Your task to perform on an android device: toggle show notifications on the lock screen Image 0: 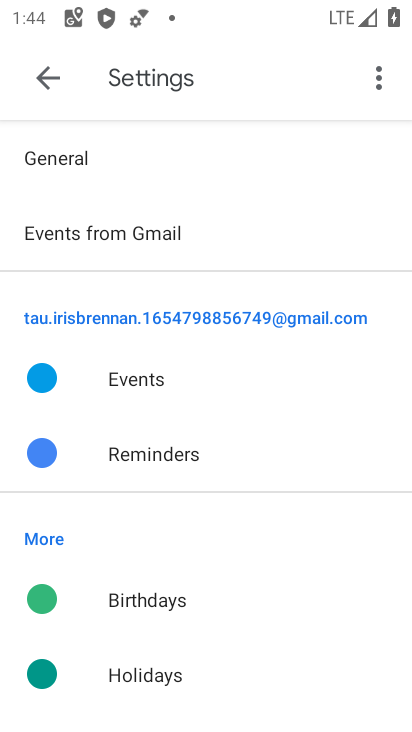
Step 0: press home button
Your task to perform on an android device: toggle show notifications on the lock screen Image 1: 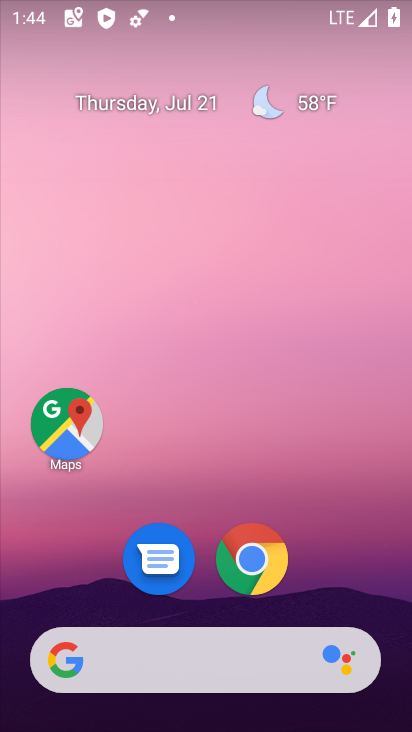
Step 1: drag from (373, 576) to (402, 86)
Your task to perform on an android device: toggle show notifications on the lock screen Image 2: 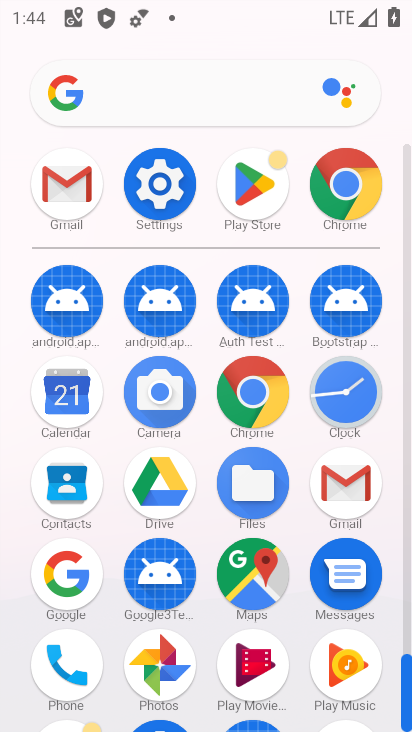
Step 2: click (168, 207)
Your task to perform on an android device: toggle show notifications on the lock screen Image 3: 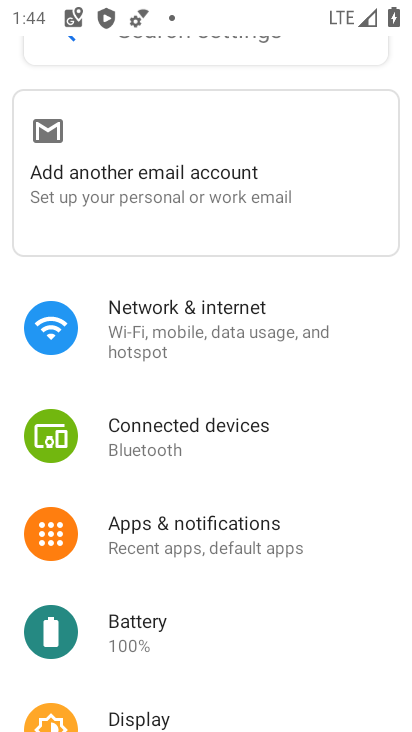
Step 3: drag from (365, 556) to (362, 415)
Your task to perform on an android device: toggle show notifications on the lock screen Image 4: 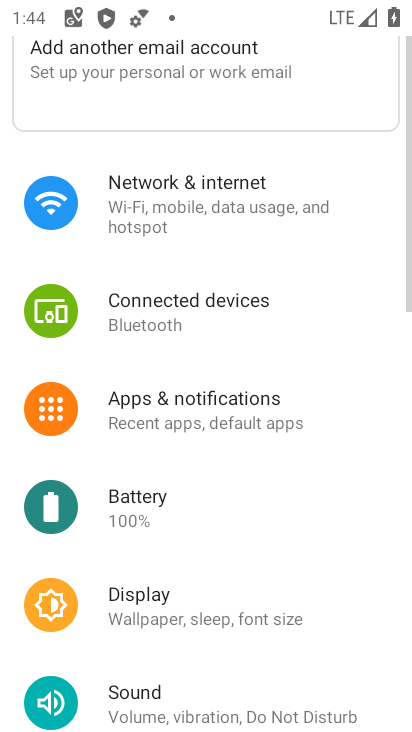
Step 4: drag from (348, 533) to (354, 428)
Your task to perform on an android device: toggle show notifications on the lock screen Image 5: 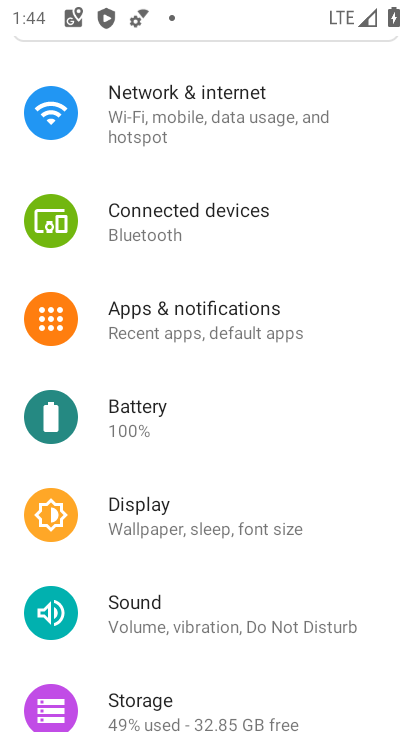
Step 5: drag from (355, 525) to (357, 425)
Your task to perform on an android device: toggle show notifications on the lock screen Image 6: 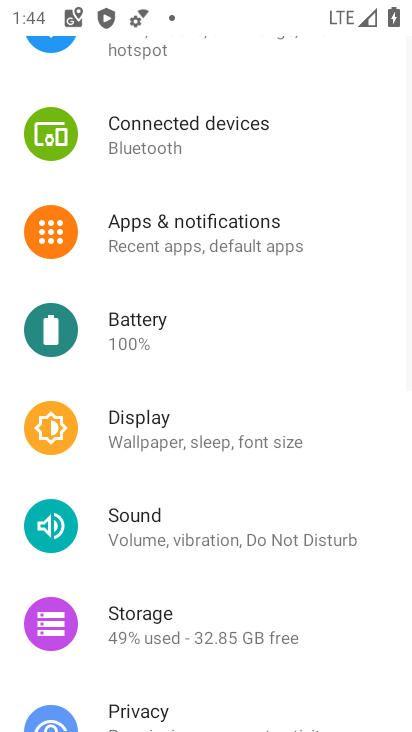
Step 6: drag from (349, 594) to (349, 486)
Your task to perform on an android device: toggle show notifications on the lock screen Image 7: 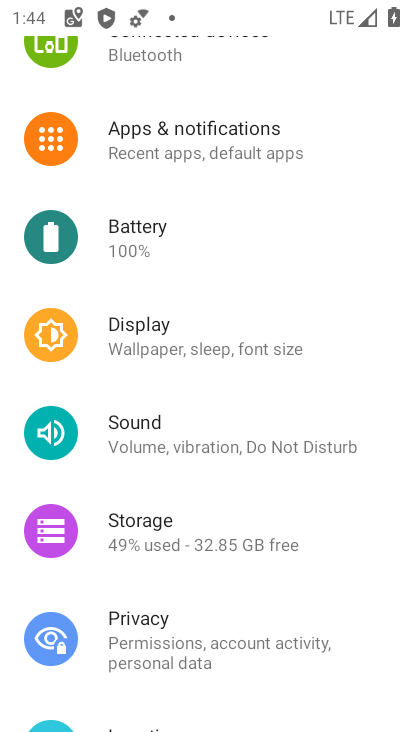
Step 7: drag from (347, 568) to (353, 439)
Your task to perform on an android device: toggle show notifications on the lock screen Image 8: 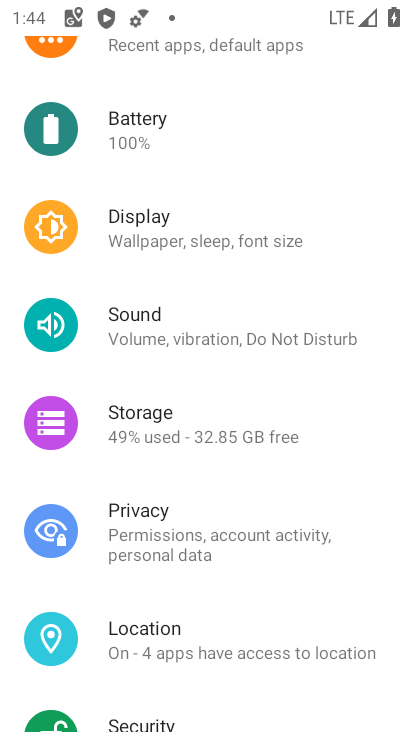
Step 8: drag from (347, 507) to (361, 313)
Your task to perform on an android device: toggle show notifications on the lock screen Image 9: 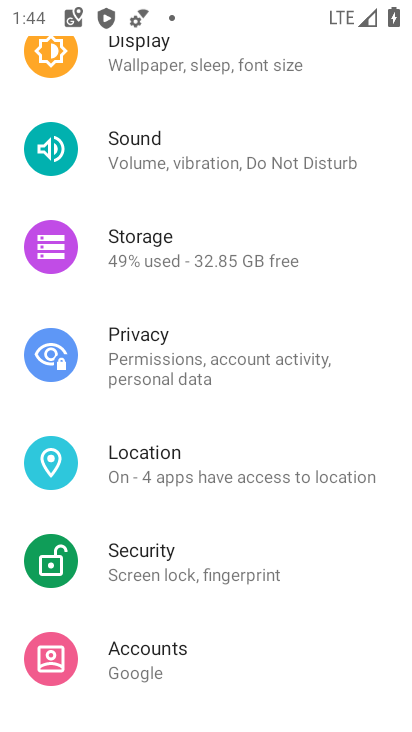
Step 9: drag from (365, 287) to (369, 377)
Your task to perform on an android device: toggle show notifications on the lock screen Image 10: 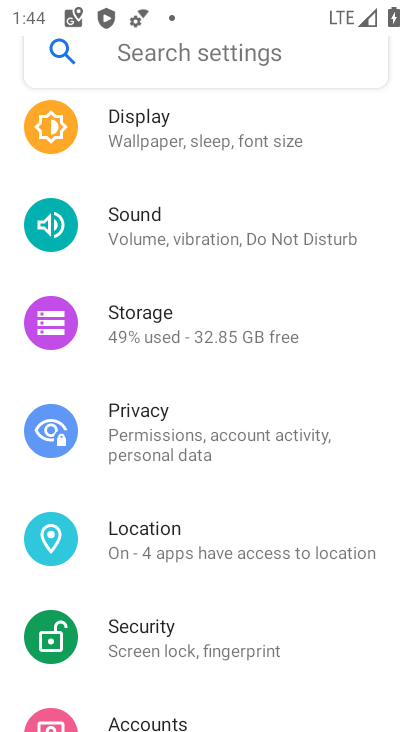
Step 10: drag from (372, 248) to (379, 347)
Your task to perform on an android device: toggle show notifications on the lock screen Image 11: 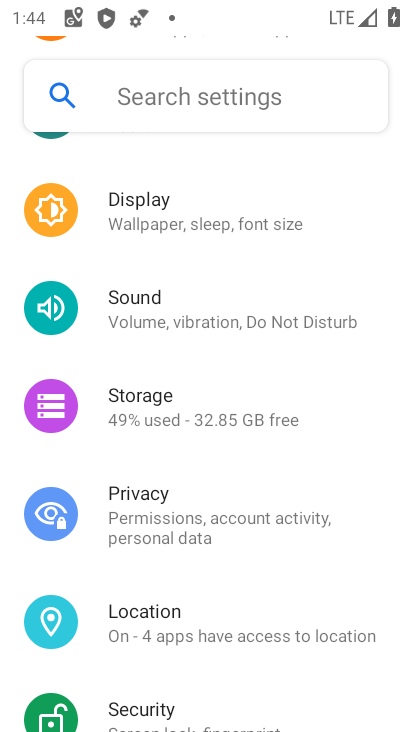
Step 11: drag from (370, 208) to (375, 311)
Your task to perform on an android device: toggle show notifications on the lock screen Image 12: 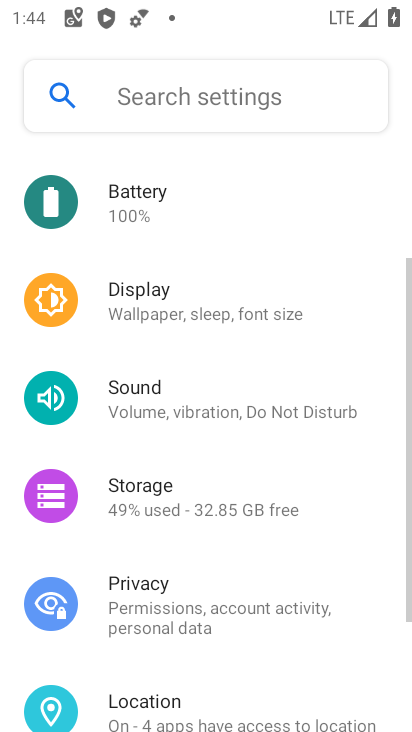
Step 12: drag from (362, 207) to (365, 330)
Your task to perform on an android device: toggle show notifications on the lock screen Image 13: 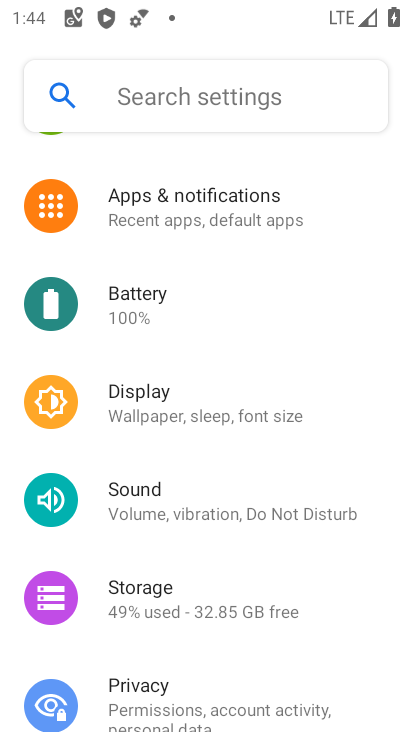
Step 13: drag from (361, 193) to (365, 310)
Your task to perform on an android device: toggle show notifications on the lock screen Image 14: 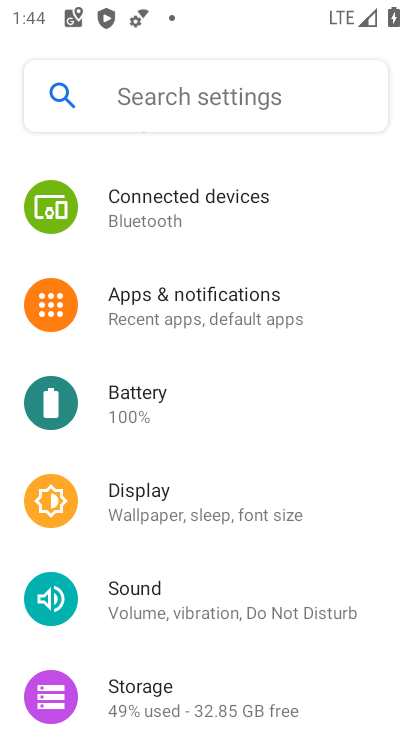
Step 14: click (318, 320)
Your task to perform on an android device: toggle show notifications on the lock screen Image 15: 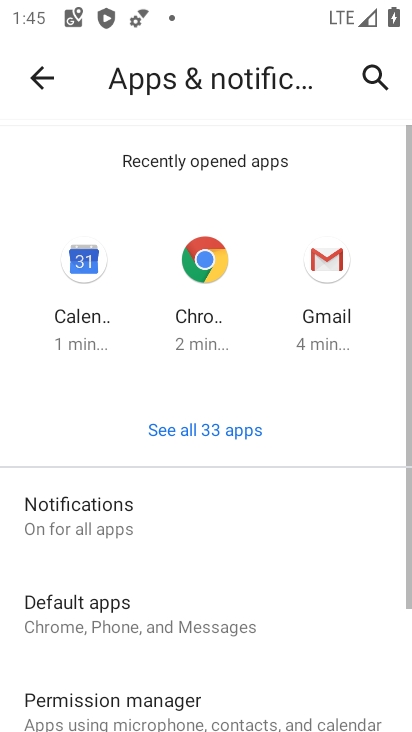
Step 15: click (257, 528)
Your task to perform on an android device: toggle show notifications on the lock screen Image 16: 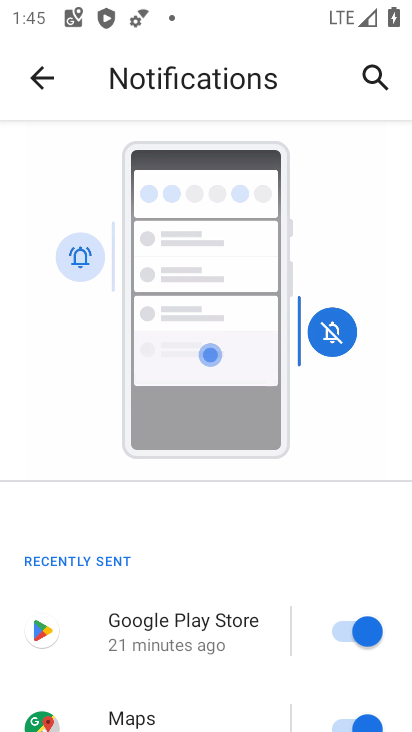
Step 16: drag from (259, 540) to (262, 431)
Your task to perform on an android device: toggle show notifications on the lock screen Image 17: 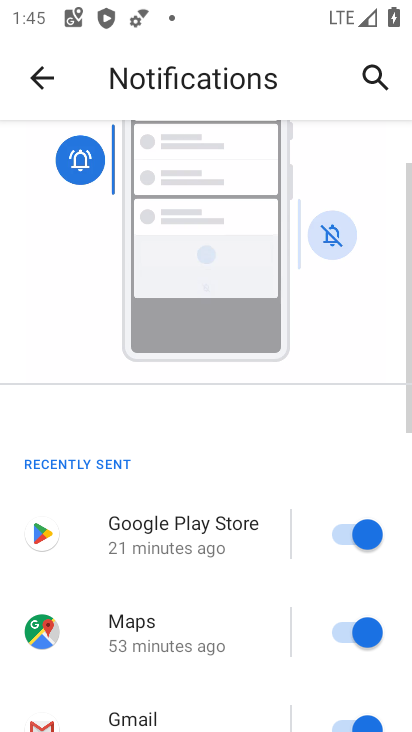
Step 17: drag from (254, 566) to (264, 465)
Your task to perform on an android device: toggle show notifications on the lock screen Image 18: 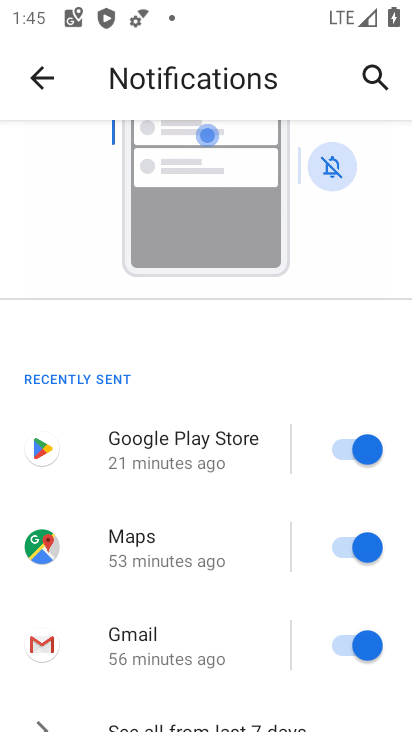
Step 18: drag from (258, 570) to (264, 450)
Your task to perform on an android device: toggle show notifications on the lock screen Image 19: 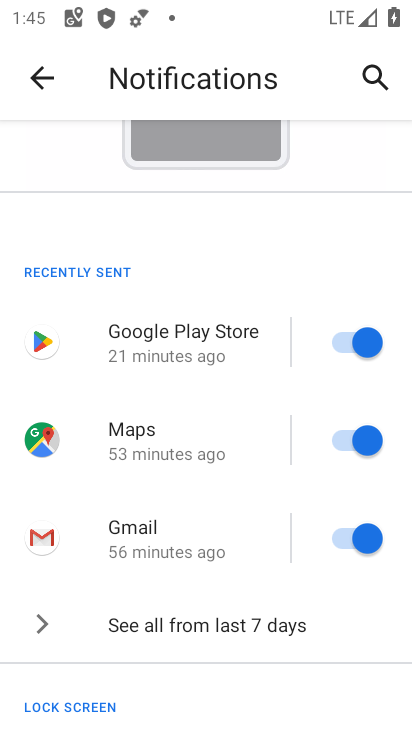
Step 19: drag from (258, 504) to (266, 412)
Your task to perform on an android device: toggle show notifications on the lock screen Image 20: 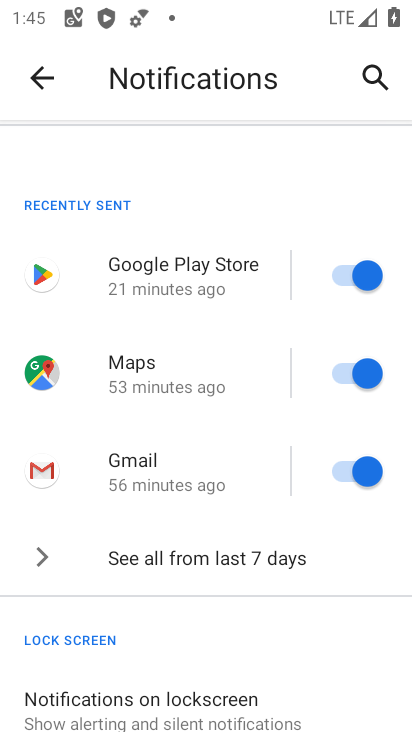
Step 20: drag from (247, 595) to (250, 429)
Your task to perform on an android device: toggle show notifications on the lock screen Image 21: 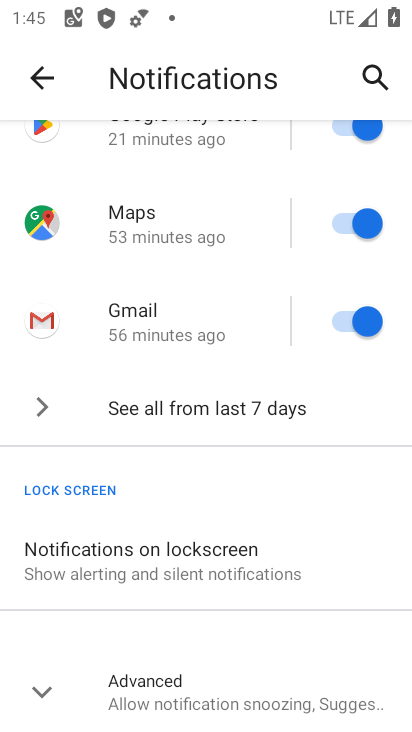
Step 21: click (251, 563)
Your task to perform on an android device: toggle show notifications on the lock screen Image 22: 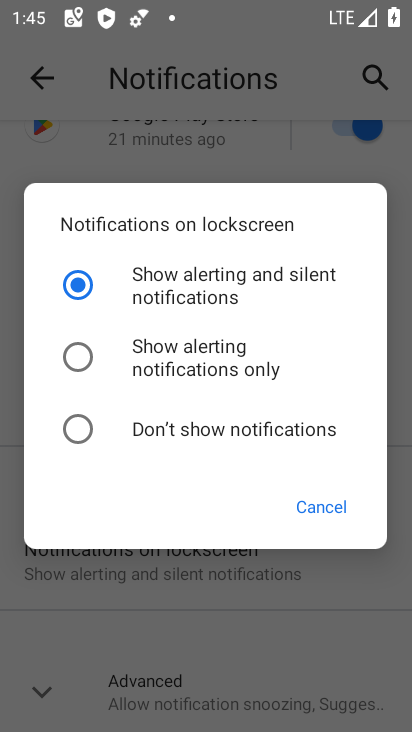
Step 22: click (202, 373)
Your task to perform on an android device: toggle show notifications on the lock screen Image 23: 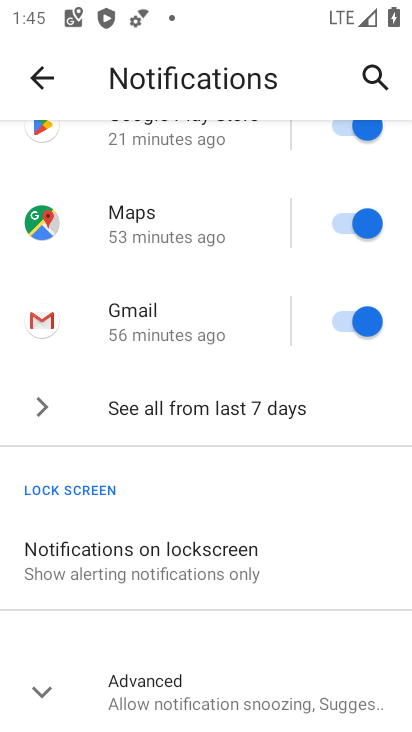
Step 23: task complete